Your task to perform on an android device: Open sound settings Image 0: 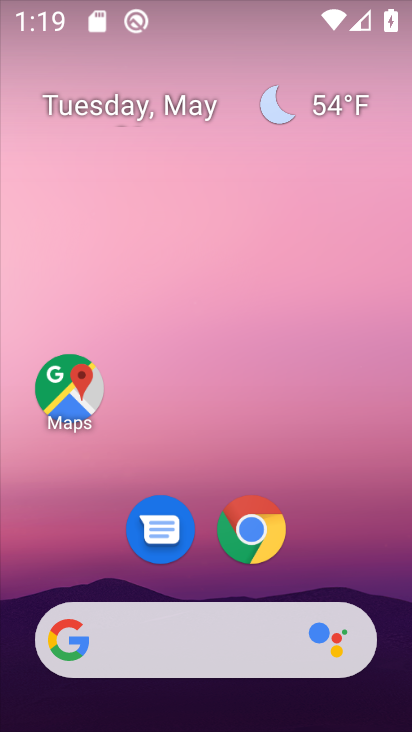
Step 0: drag from (364, 544) to (359, 267)
Your task to perform on an android device: Open sound settings Image 1: 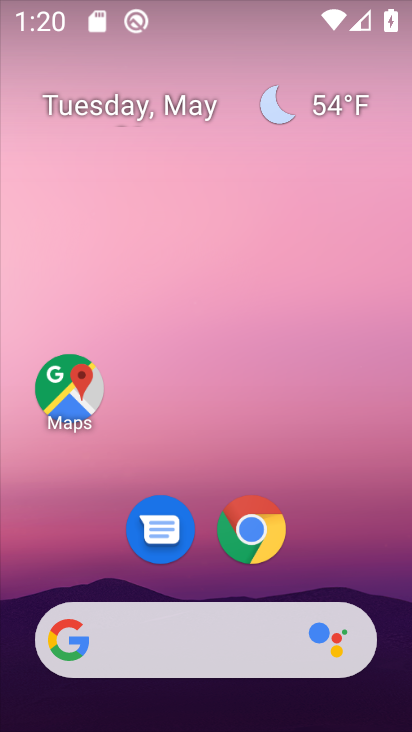
Step 1: drag from (323, 566) to (299, 213)
Your task to perform on an android device: Open sound settings Image 2: 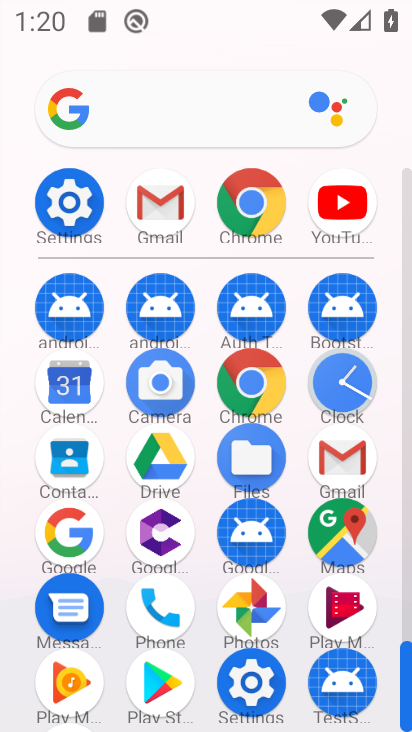
Step 2: click (75, 198)
Your task to perform on an android device: Open sound settings Image 3: 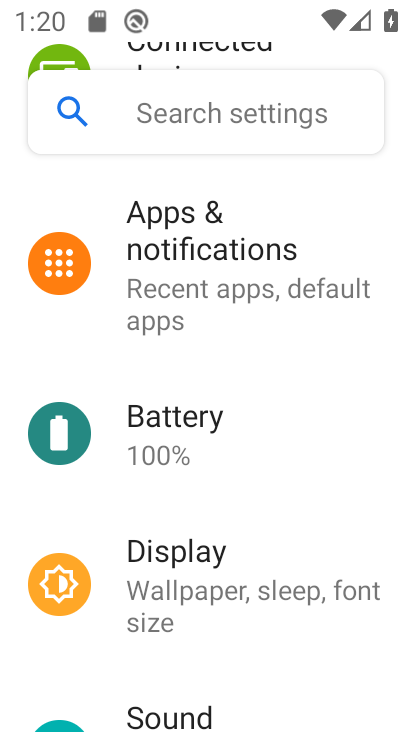
Step 3: drag from (181, 569) to (190, 361)
Your task to perform on an android device: Open sound settings Image 4: 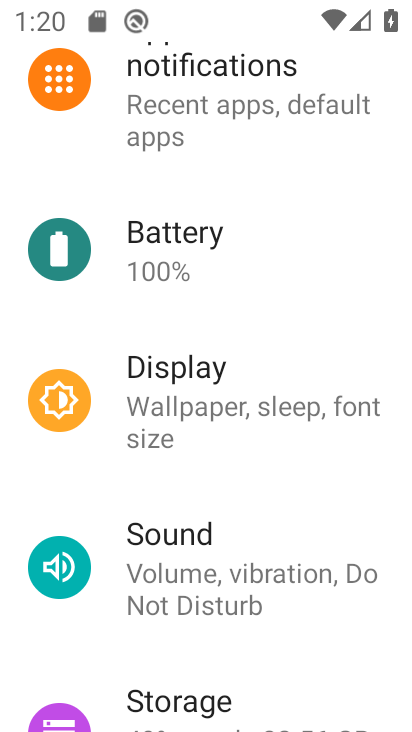
Step 4: click (190, 536)
Your task to perform on an android device: Open sound settings Image 5: 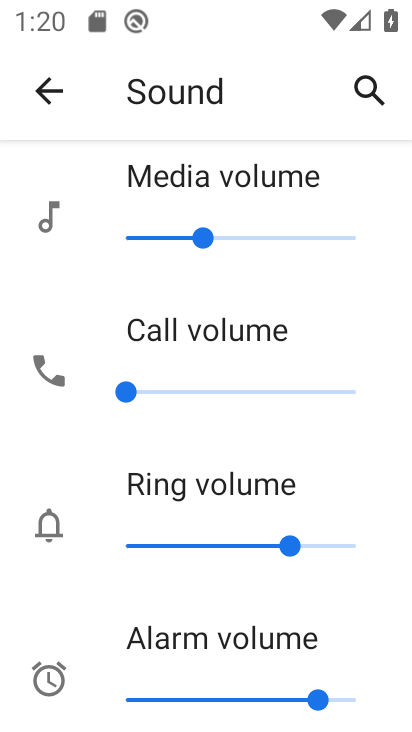
Step 5: task complete